Your task to perform on an android device: check out phone information Image 0: 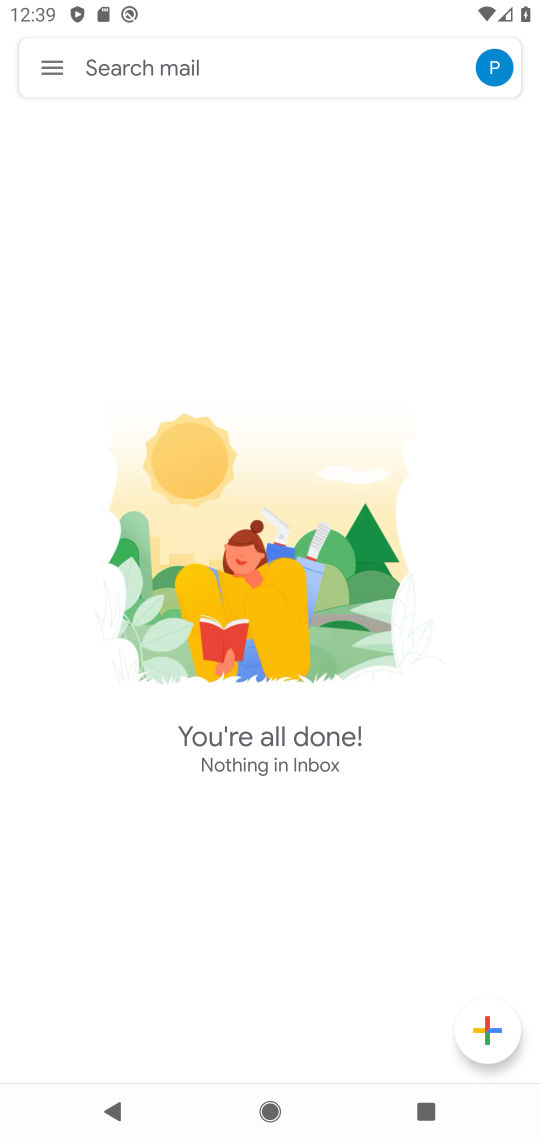
Step 0: press home button
Your task to perform on an android device: check out phone information Image 1: 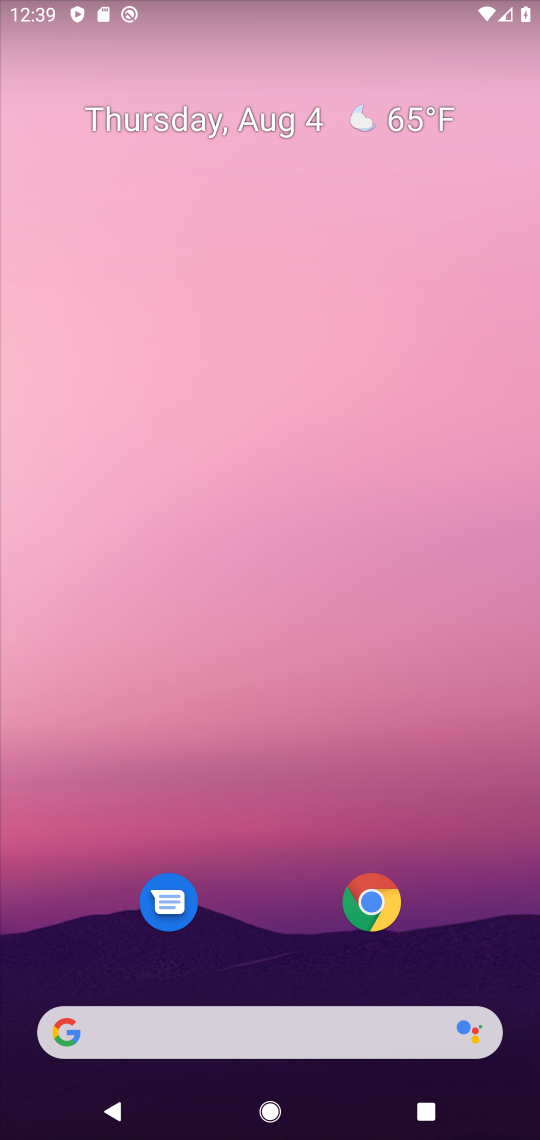
Step 1: drag from (479, 972) to (442, 201)
Your task to perform on an android device: check out phone information Image 2: 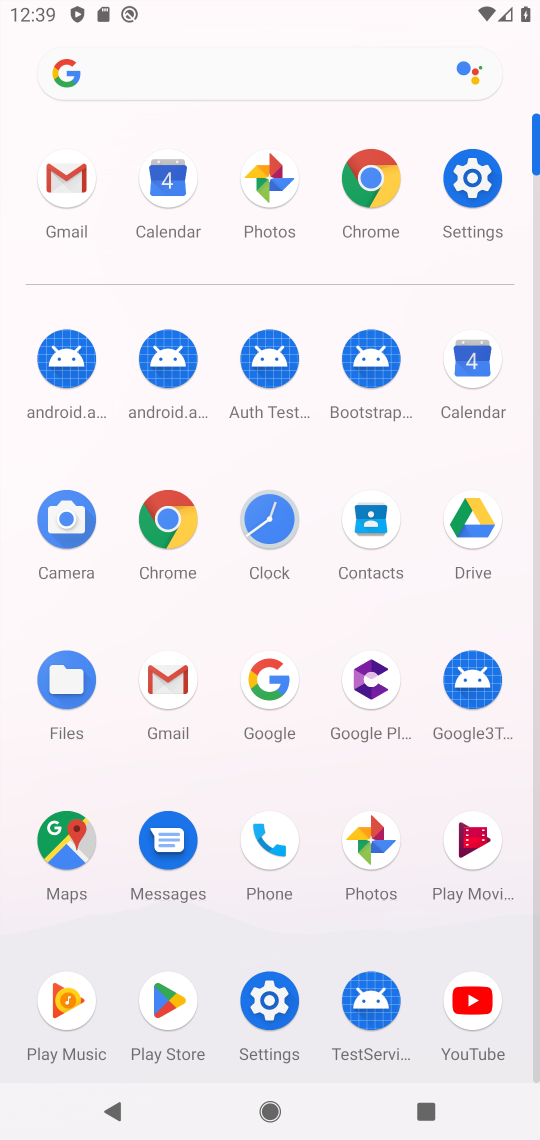
Step 2: click (271, 1000)
Your task to perform on an android device: check out phone information Image 3: 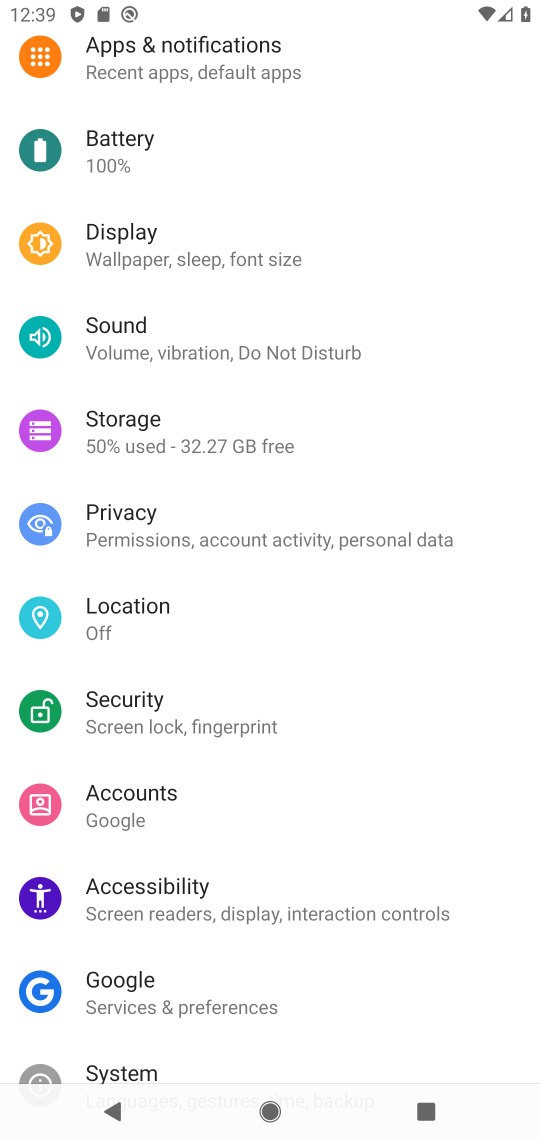
Step 3: drag from (452, 987) to (432, 448)
Your task to perform on an android device: check out phone information Image 4: 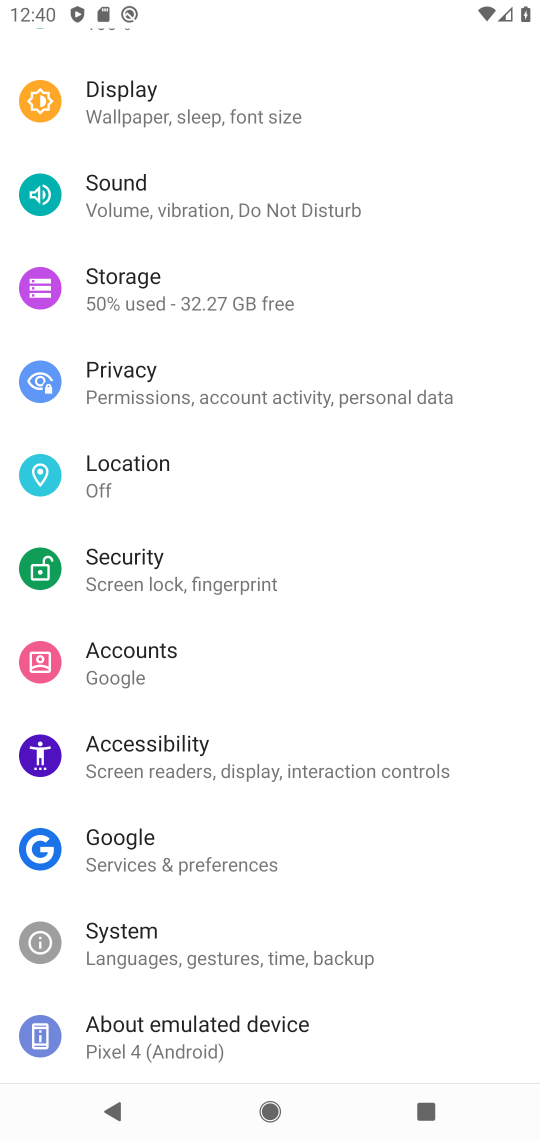
Step 4: click (127, 1029)
Your task to perform on an android device: check out phone information Image 5: 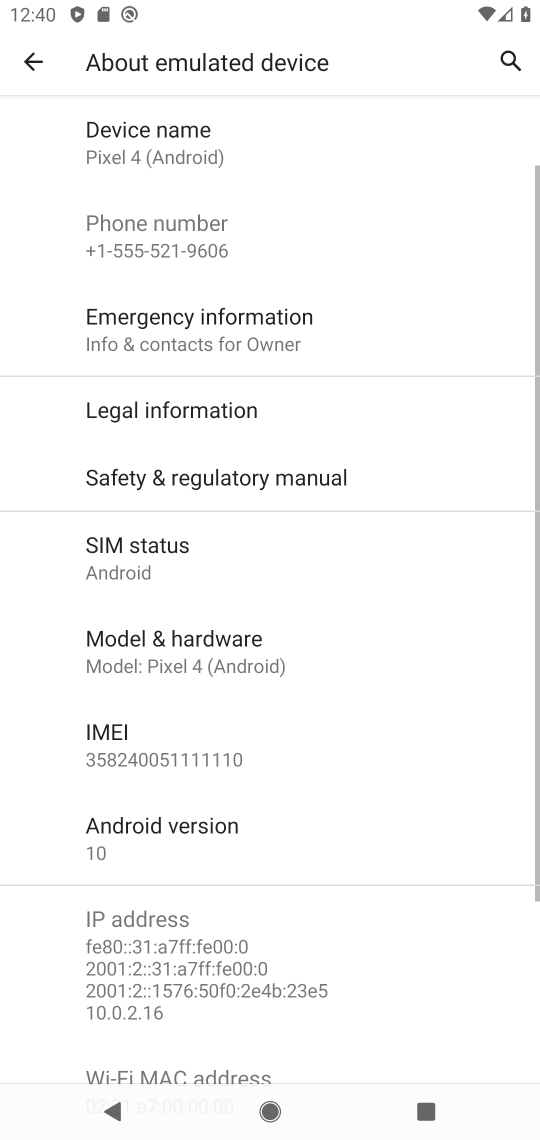
Step 5: task complete